Your task to perform on an android device: turn on javascript in the chrome app Image 0: 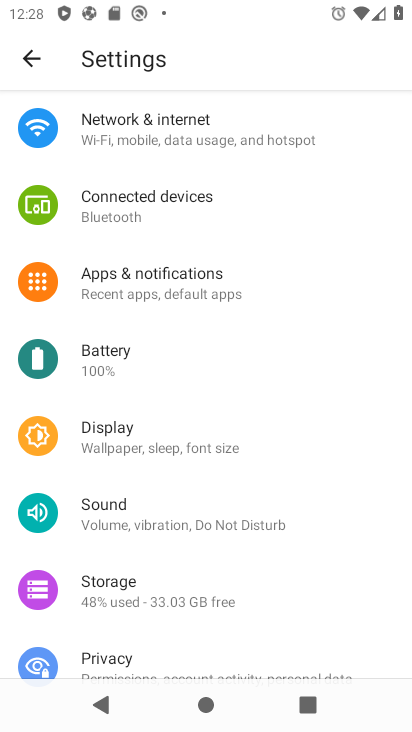
Step 0: drag from (296, 617) to (265, 307)
Your task to perform on an android device: turn on javascript in the chrome app Image 1: 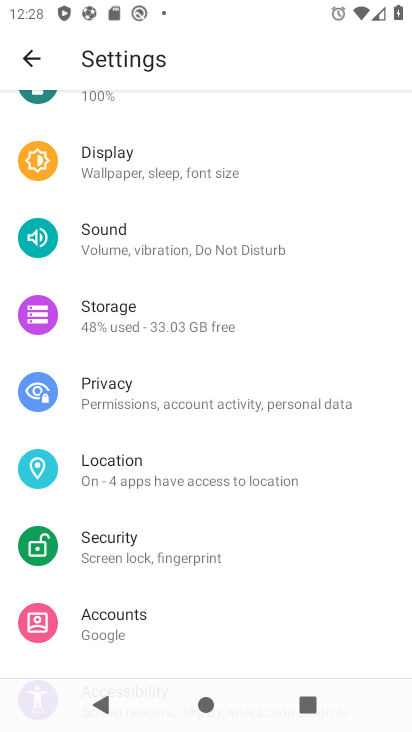
Step 1: press home button
Your task to perform on an android device: turn on javascript in the chrome app Image 2: 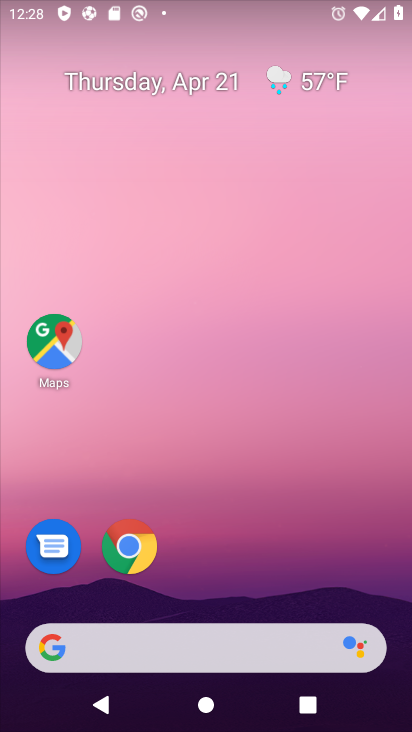
Step 2: click (135, 554)
Your task to perform on an android device: turn on javascript in the chrome app Image 3: 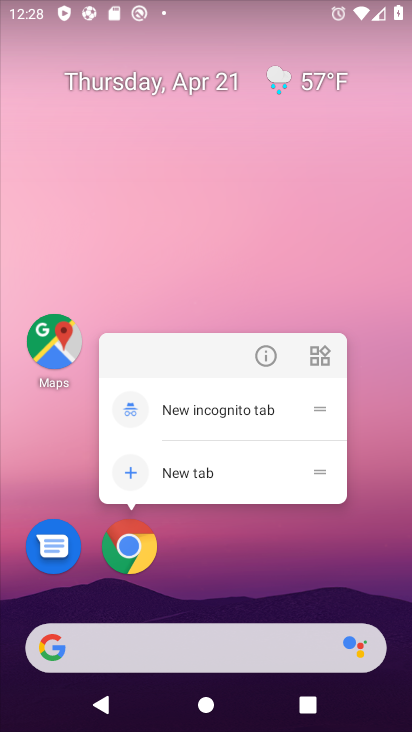
Step 3: click (140, 557)
Your task to perform on an android device: turn on javascript in the chrome app Image 4: 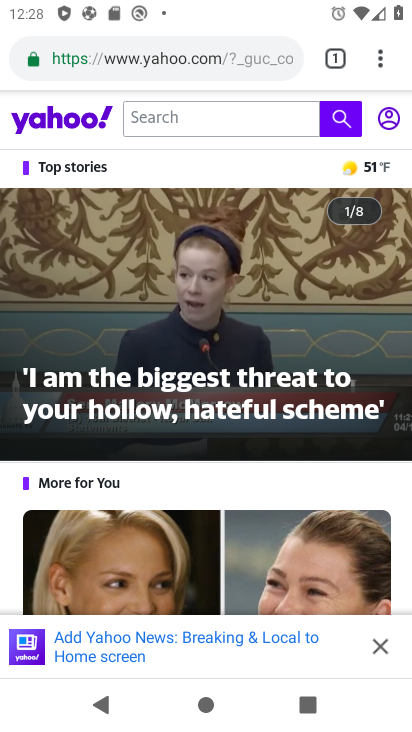
Step 4: click (382, 44)
Your task to perform on an android device: turn on javascript in the chrome app Image 5: 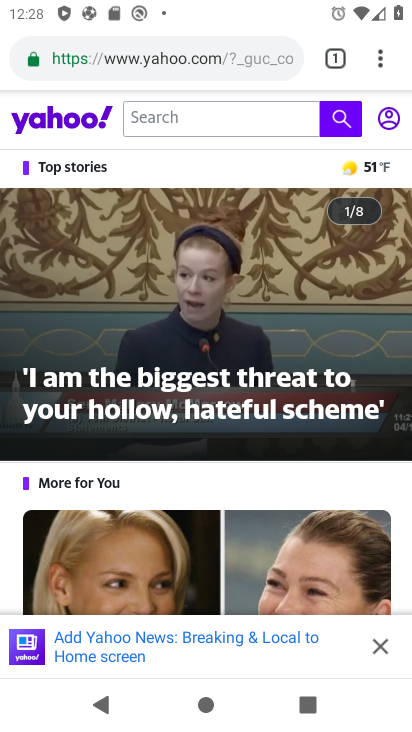
Step 5: click (380, 81)
Your task to perform on an android device: turn on javascript in the chrome app Image 6: 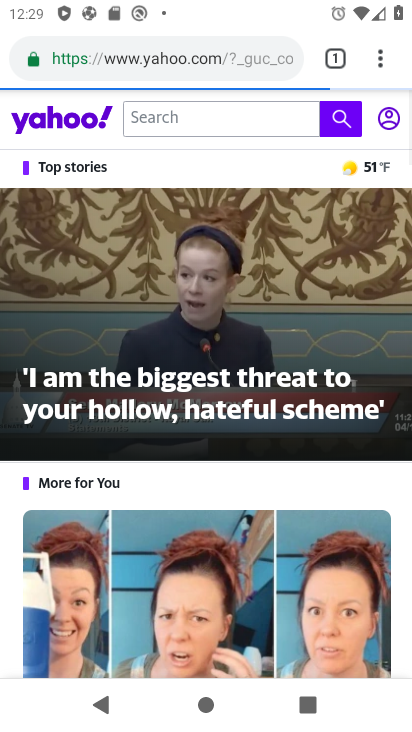
Step 6: click (380, 53)
Your task to perform on an android device: turn on javascript in the chrome app Image 7: 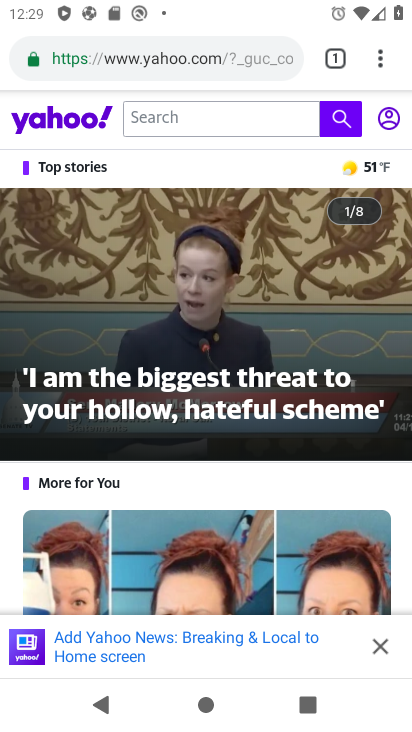
Step 7: click (379, 53)
Your task to perform on an android device: turn on javascript in the chrome app Image 8: 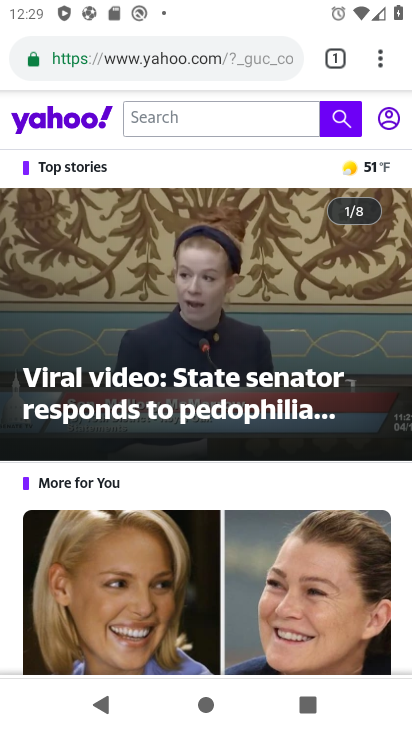
Step 8: click (379, 53)
Your task to perform on an android device: turn on javascript in the chrome app Image 9: 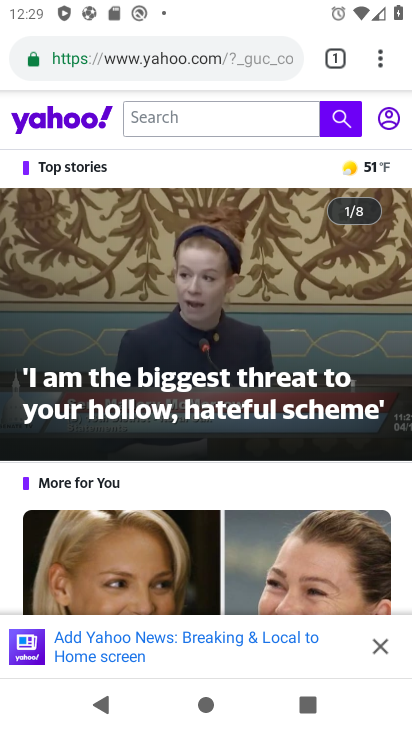
Step 9: click (381, 71)
Your task to perform on an android device: turn on javascript in the chrome app Image 10: 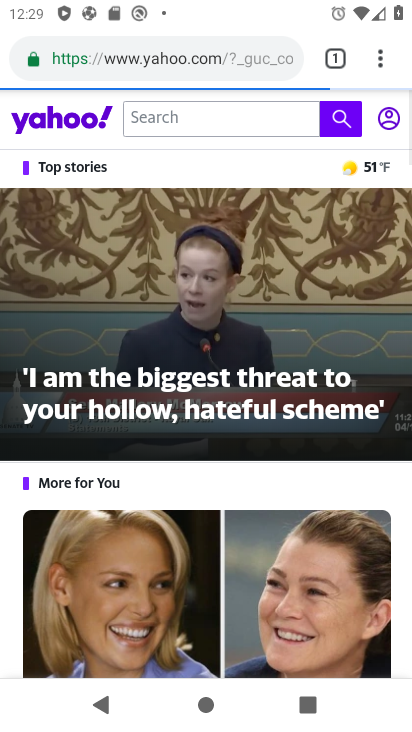
Step 10: click (381, 71)
Your task to perform on an android device: turn on javascript in the chrome app Image 11: 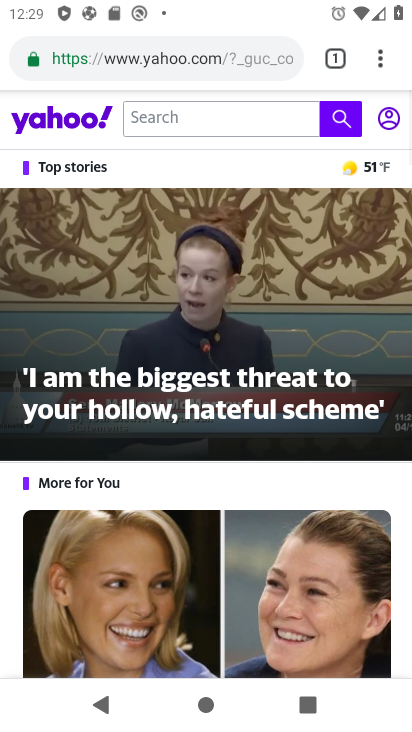
Step 11: click (373, 78)
Your task to perform on an android device: turn on javascript in the chrome app Image 12: 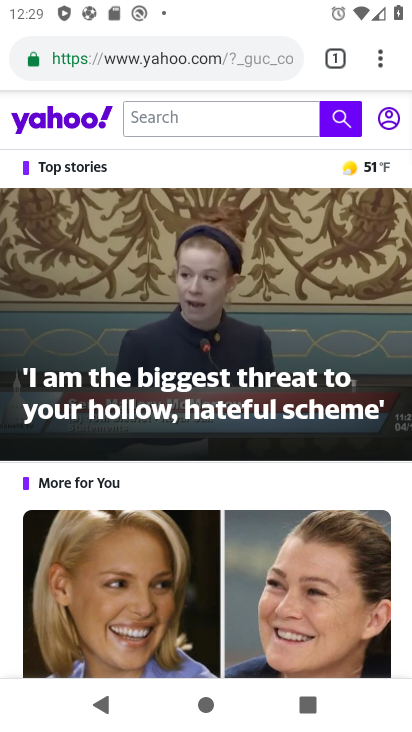
Step 12: click (377, 74)
Your task to perform on an android device: turn on javascript in the chrome app Image 13: 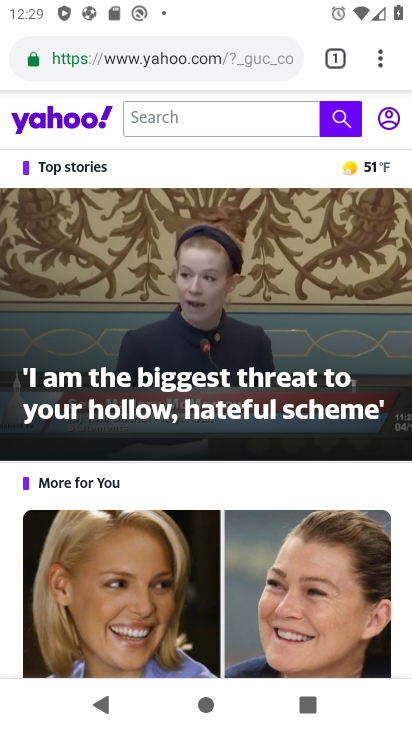
Step 13: click (377, 74)
Your task to perform on an android device: turn on javascript in the chrome app Image 14: 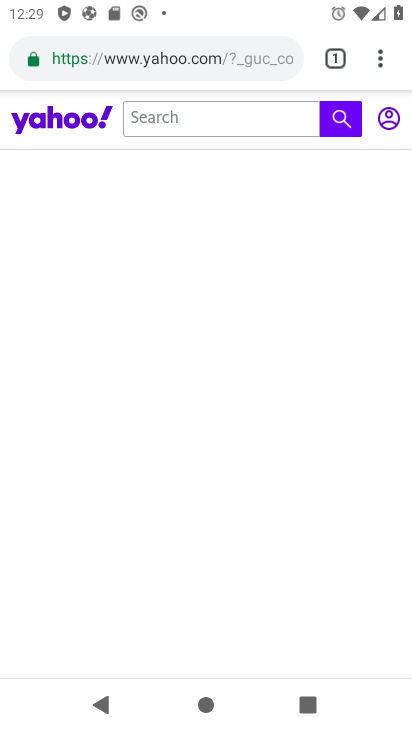
Step 14: click (377, 74)
Your task to perform on an android device: turn on javascript in the chrome app Image 15: 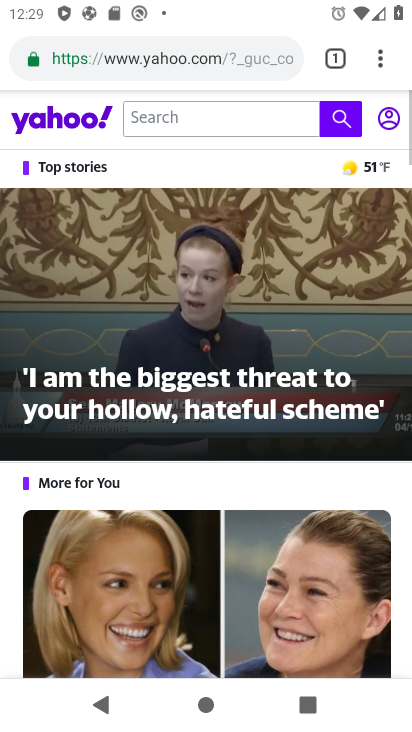
Step 15: click (388, 71)
Your task to perform on an android device: turn on javascript in the chrome app Image 16: 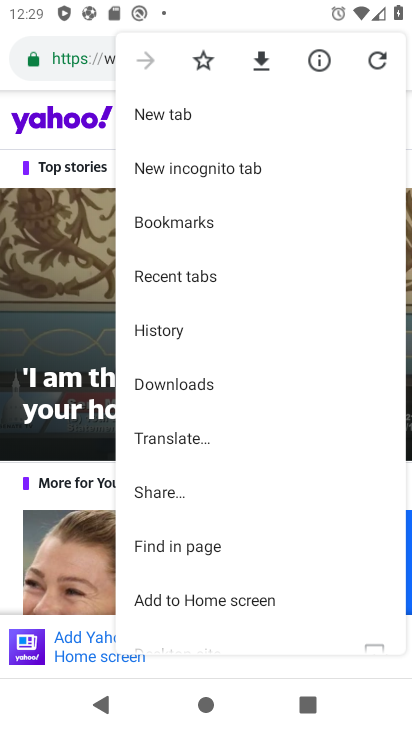
Step 16: drag from (243, 547) to (252, 250)
Your task to perform on an android device: turn on javascript in the chrome app Image 17: 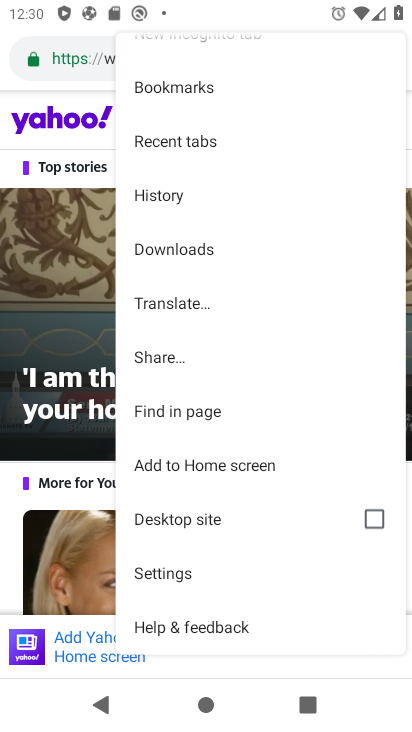
Step 17: click (184, 573)
Your task to perform on an android device: turn on javascript in the chrome app Image 18: 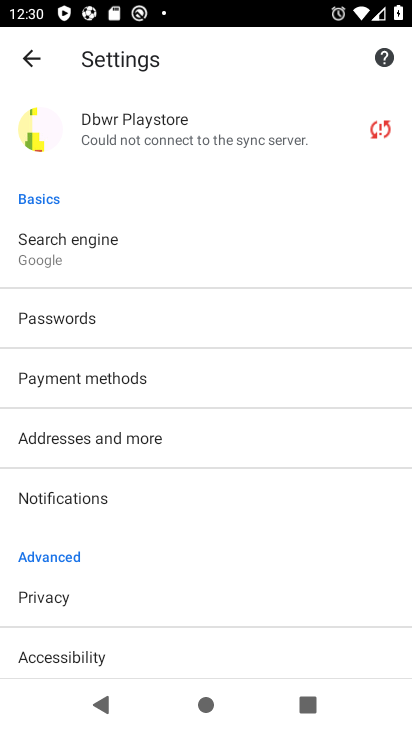
Step 18: drag from (191, 606) to (188, 119)
Your task to perform on an android device: turn on javascript in the chrome app Image 19: 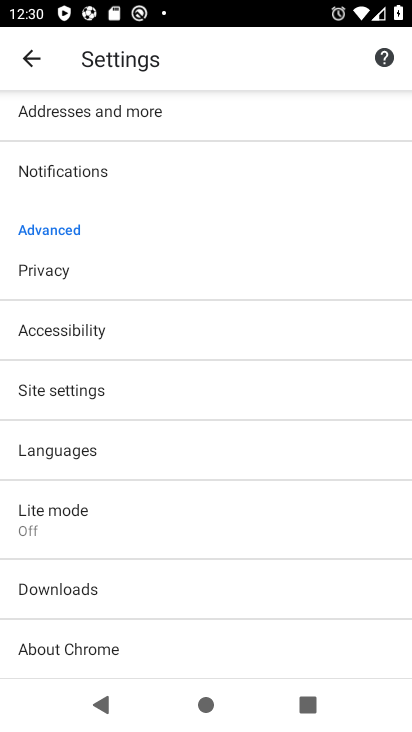
Step 19: click (90, 396)
Your task to perform on an android device: turn on javascript in the chrome app Image 20: 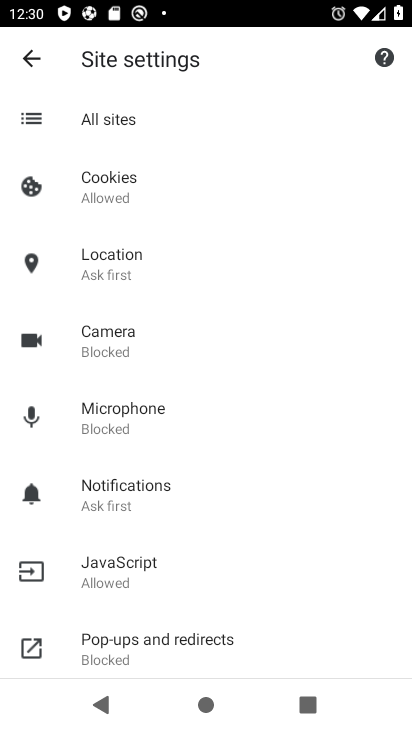
Step 20: click (113, 567)
Your task to perform on an android device: turn on javascript in the chrome app Image 21: 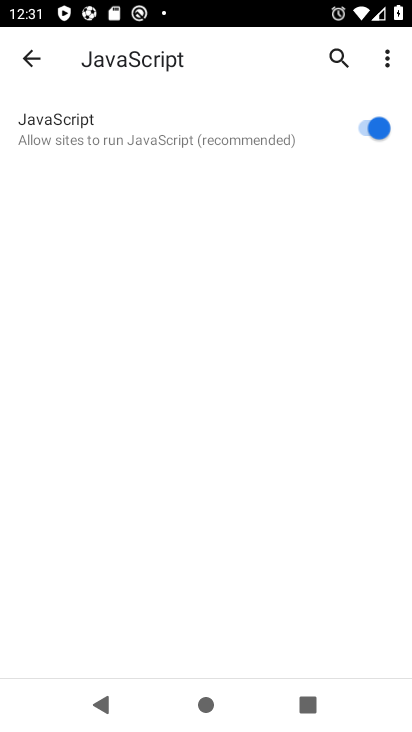
Step 21: task complete